Your task to perform on an android device: Open settings on Google Maps Image 0: 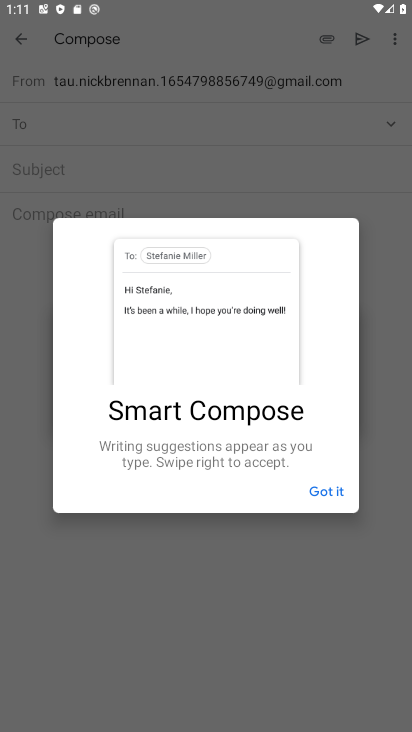
Step 0: press home button
Your task to perform on an android device: Open settings on Google Maps Image 1: 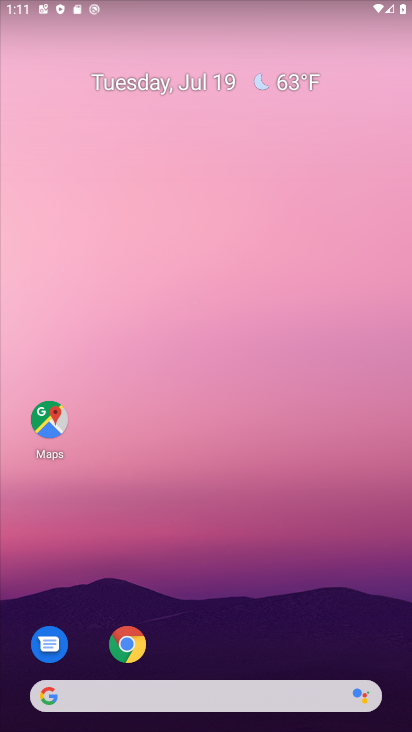
Step 1: drag from (182, 723) to (176, 123)
Your task to perform on an android device: Open settings on Google Maps Image 2: 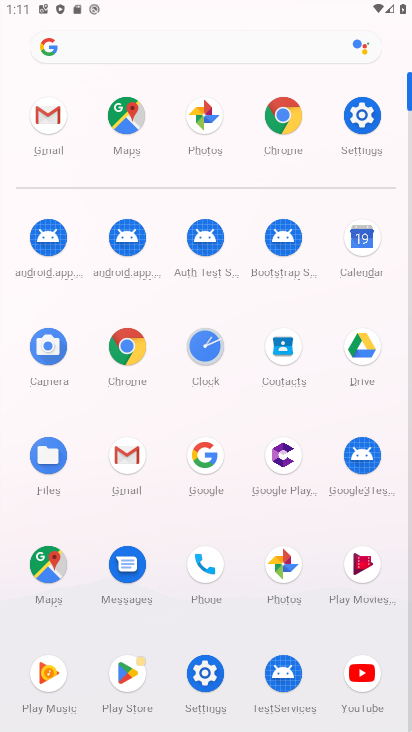
Step 2: click (46, 563)
Your task to perform on an android device: Open settings on Google Maps Image 3: 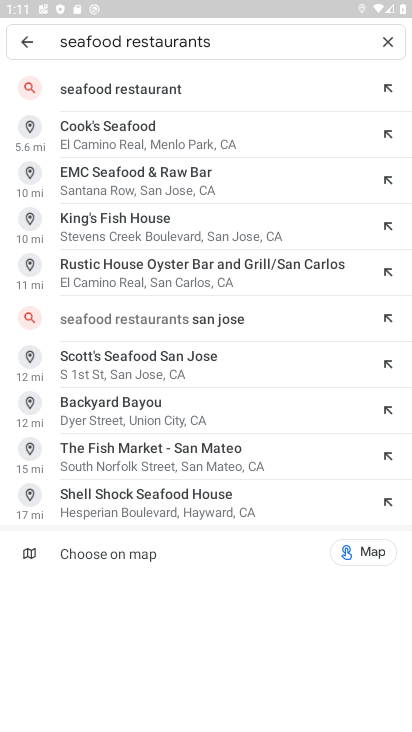
Step 3: click (29, 37)
Your task to perform on an android device: Open settings on Google Maps Image 4: 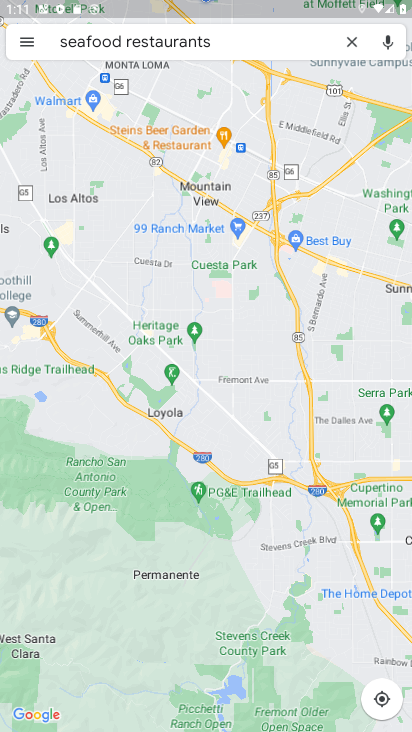
Step 4: click (28, 39)
Your task to perform on an android device: Open settings on Google Maps Image 5: 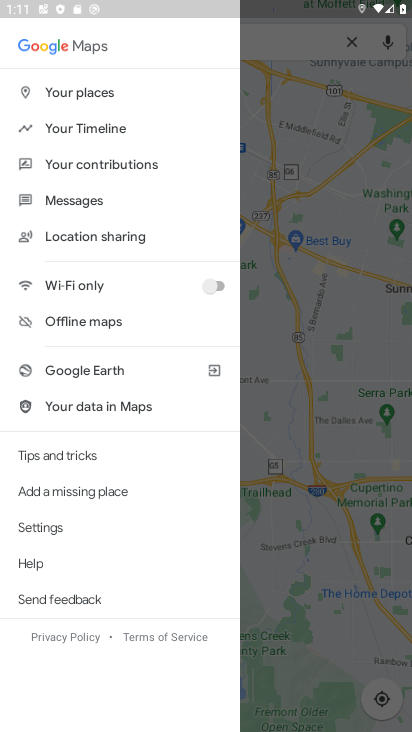
Step 5: click (46, 529)
Your task to perform on an android device: Open settings on Google Maps Image 6: 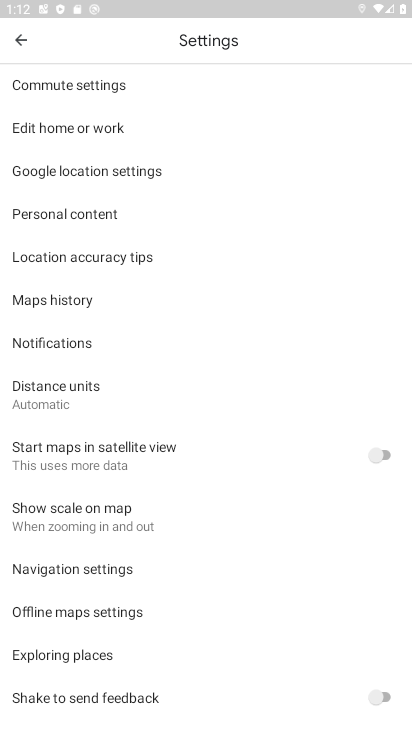
Step 6: task complete